Your task to perform on an android device: turn off javascript in the chrome app Image 0: 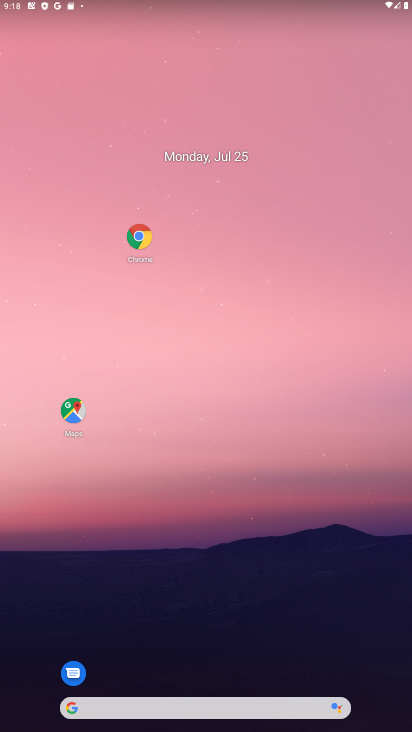
Step 0: click (142, 219)
Your task to perform on an android device: turn off javascript in the chrome app Image 1: 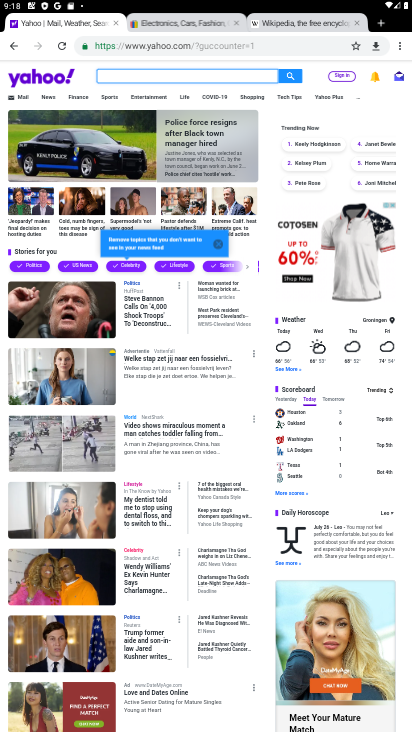
Step 1: click (391, 46)
Your task to perform on an android device: turn off javascript in the chrome app Image 2: 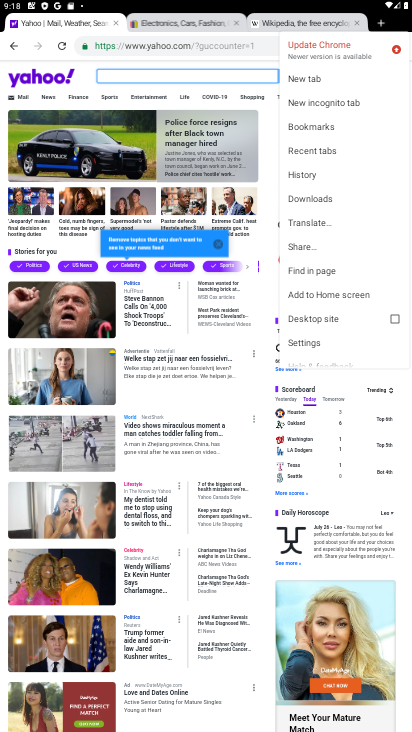
Step 2: click (308, 342)
Your task to perform on an android device: turn off javascript in the chrome app Image 3: 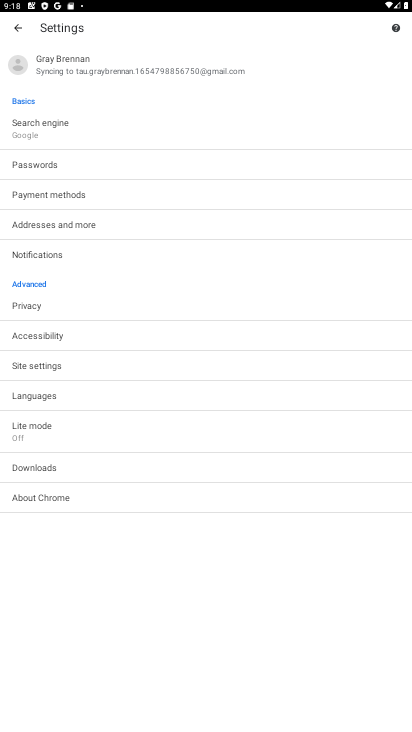
Step 3: click (182, 377)
Your task to perform on an android device: turn off javascript in the chrome app Image 4: 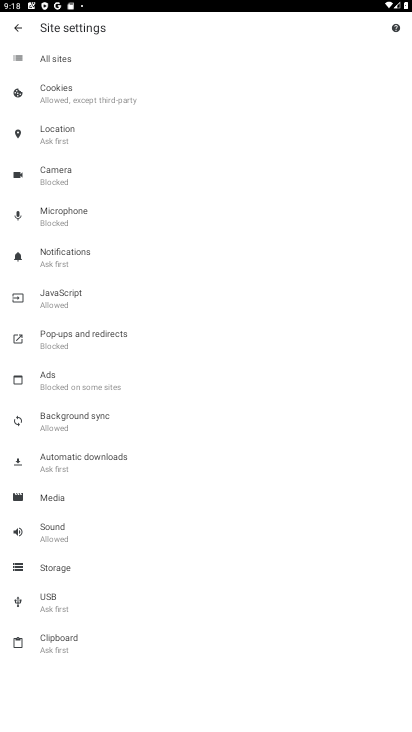
Step 4: click (84, 295)
Your task to perform on an android device: turn off javascript in the chrome app Image 5: 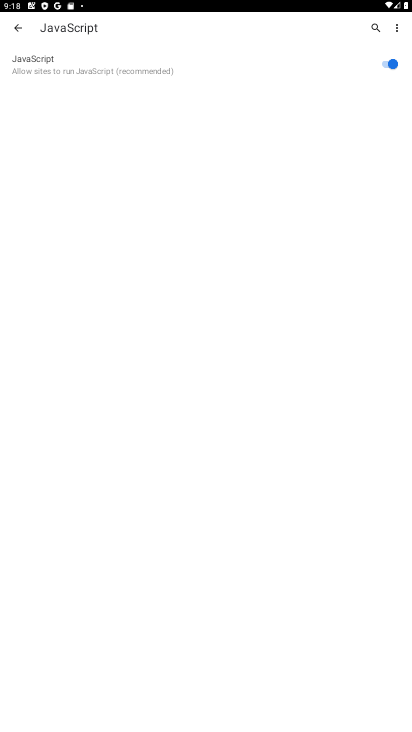
Step 5: task complete